Your task to perform on an android device: Go to network settings Image 0: 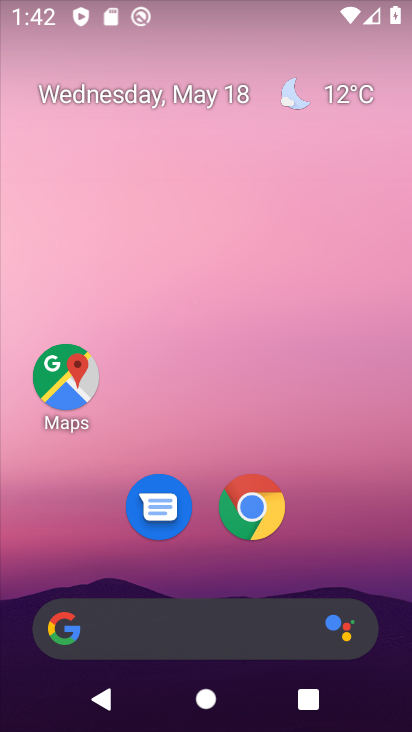
Step 0: drag from (392, 657) to (376, 344)
Your task to perform on an android device: Go to network settings Image 1: 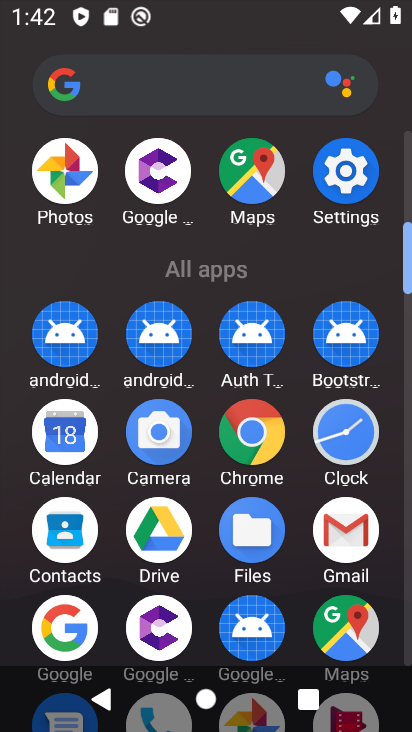
Step 1: click (343, 152)
Your task to perform on an android device: Go to network settings Image 2: 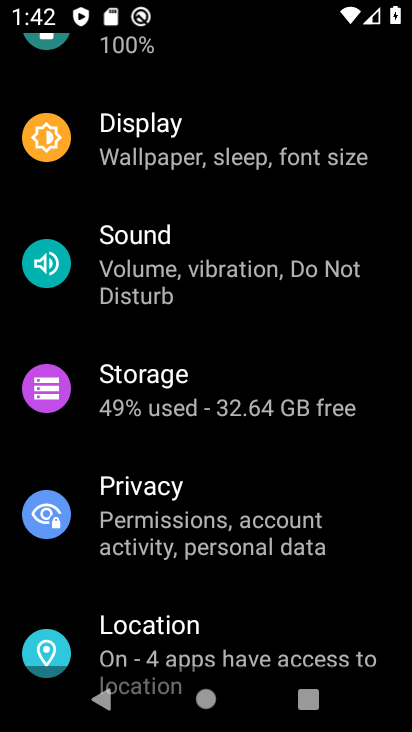
Step 2: drag from (311, 121) to (310, 310)
Your task to perform on an android device: Go to network settings Image 3: 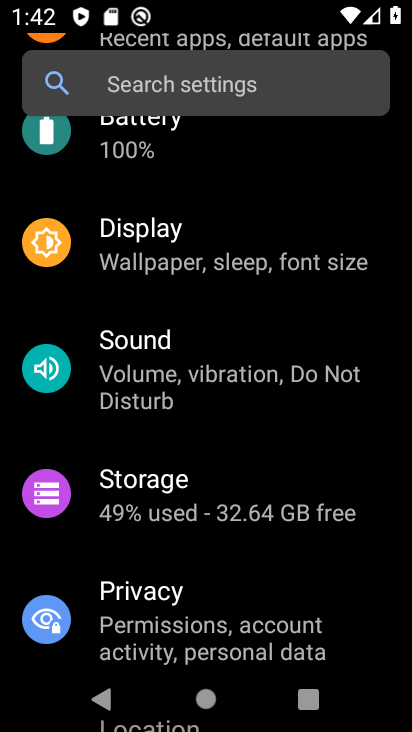
Step 3: drag from (322, 157) to (298, 415)
Your task to perform on an android device: Go to network settings Image 4: 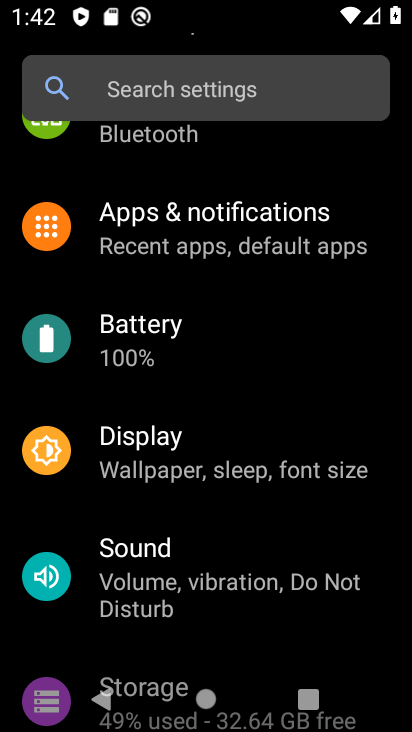
Step 4: drag from (290, 175) to (292, 379)
Your task to perform on an android device: Go to network settings Image 5: 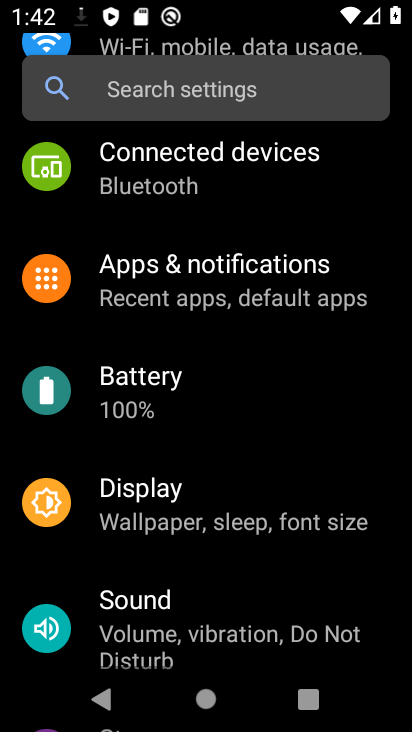
Step 5: drag from (330, 183) to (330, 619)
Your task to perform on an android device: Go to network settings Image 6: 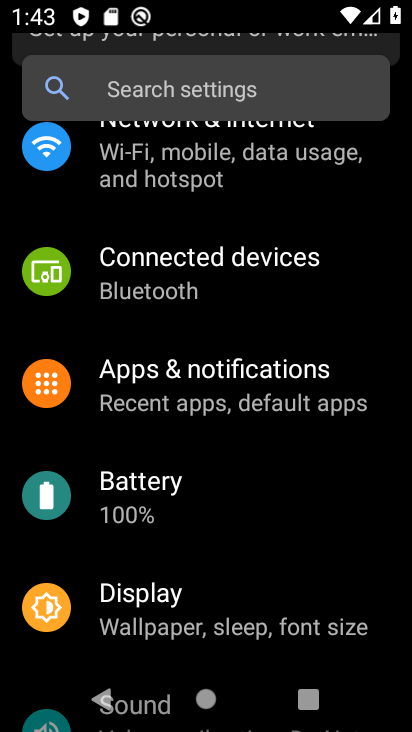
Step 6: drag from (322, 259) to (327, 460)
Your task to perform on an android device: Go to network settings Image 7: 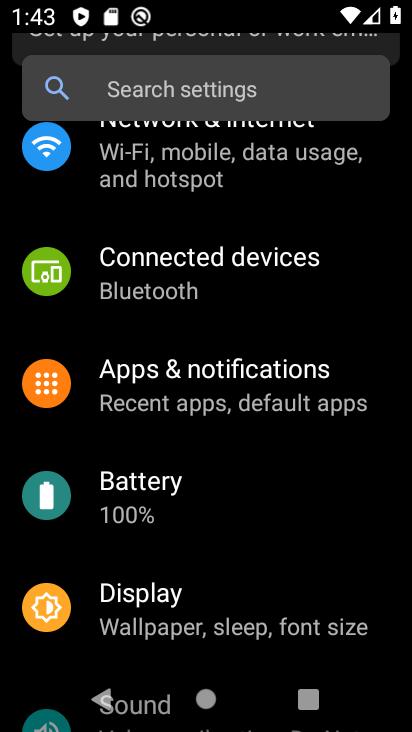
Step 7: click (362, 451)
Your task to perform on an android device: Go to network settings Image 8: 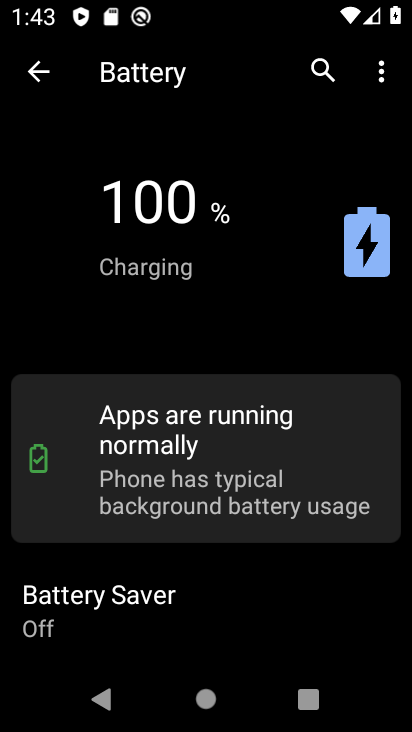
Step 8: click (24, 70)
Your task to perform on an android device: Go to network settings Image 9: 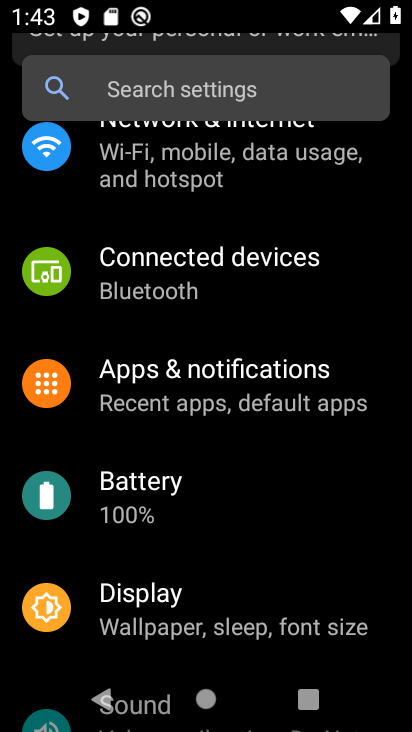
Step 9: drag from (353, 166) to (352, 369)
Your task to perform on an android device: Go to network settings Image 10: 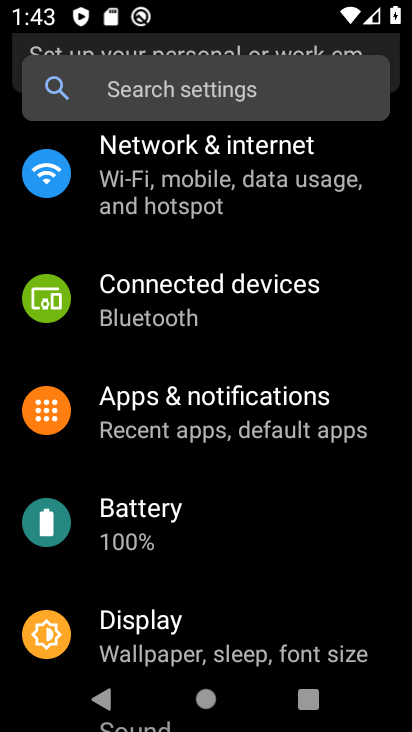
Step 10: drag from (356, 159) to (343, 510)
Your task to perform on an android device: Go to network settings Image 11: 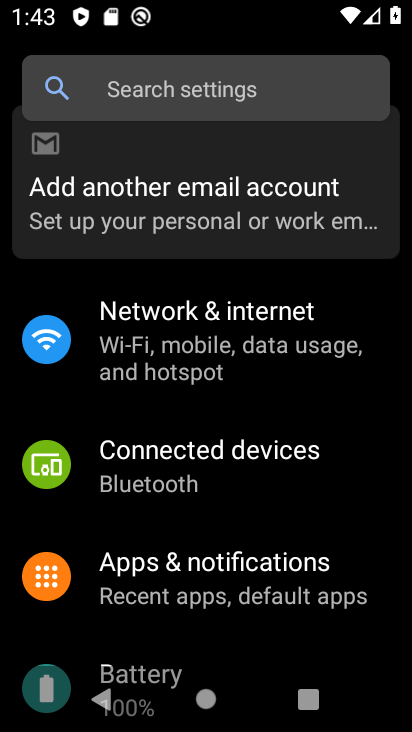
Step 11: click (168, 330)
Your task to perform on an android device: Go to network settings Image 12: 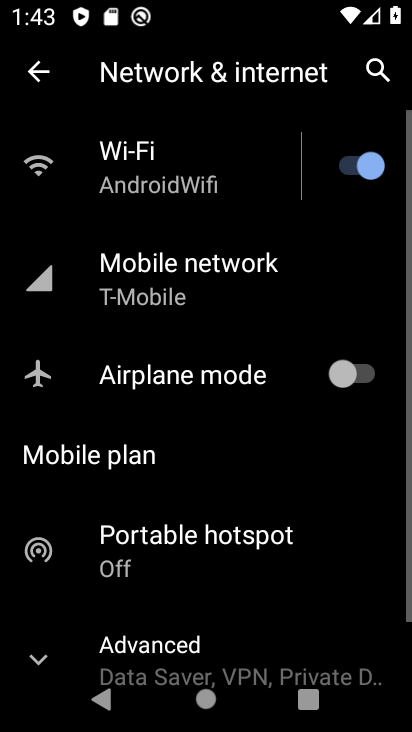
Step 12: click (158, 176)
Your task to perform on an android device: Go to network settings Image 13: 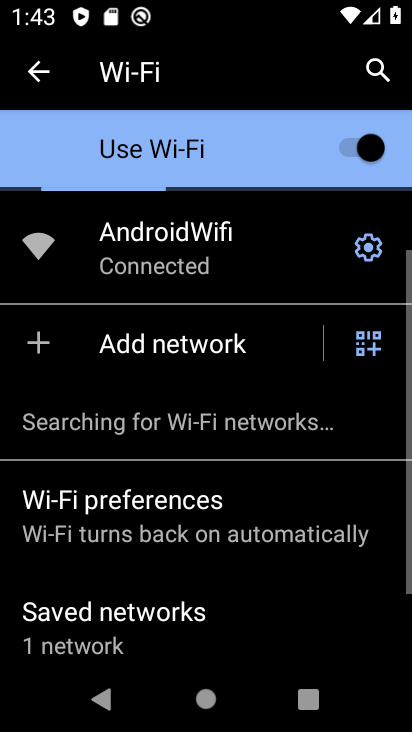
Step 13: click (370, 242)
Your task to perform on an android device: Go to network settings Image 14: 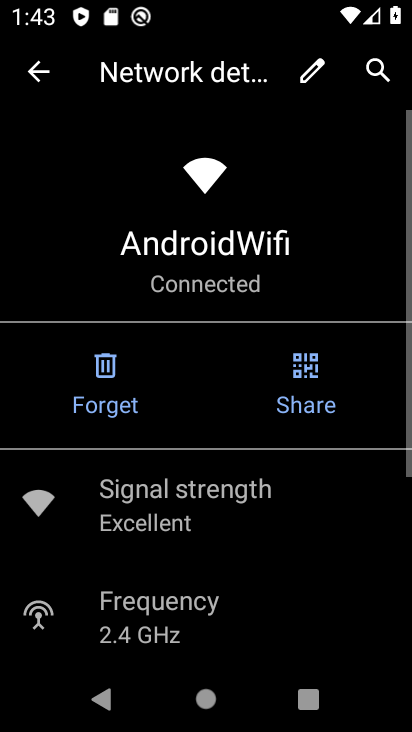
Step 14: task complete